Your task to perform on an android device: Show me popular videos on Youtube Image 0: 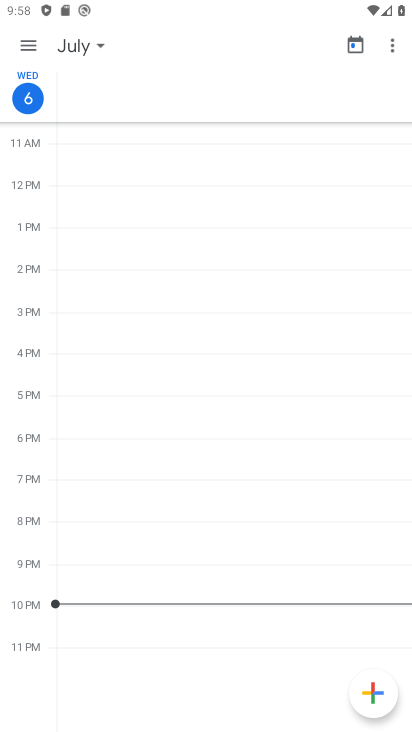
Step 0: press home button
Your task to perform on an android device: Show me popular videos on Youtube Image 1: 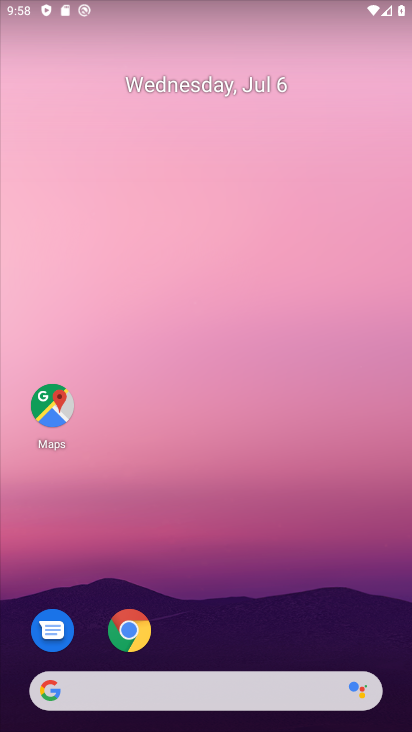
Step 1: drag from (269, 659) to (262, 255)
Your task to perform on an android device: Show me popular videos on Youtube Image 2: 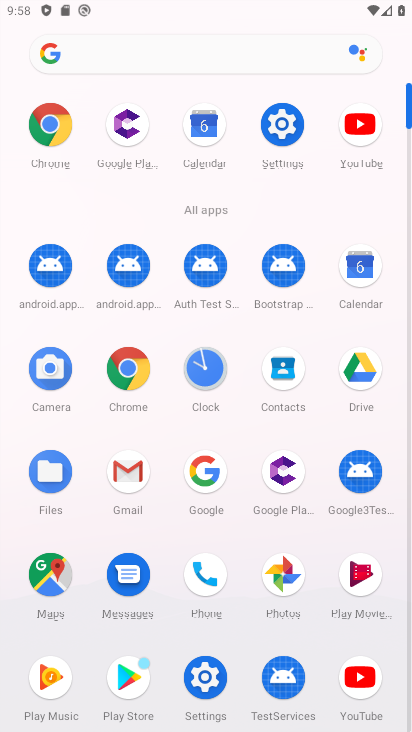
Step 2: click (373, 678)
Your task to perform on an android device: Show me popular videos on Youtube Image 3: 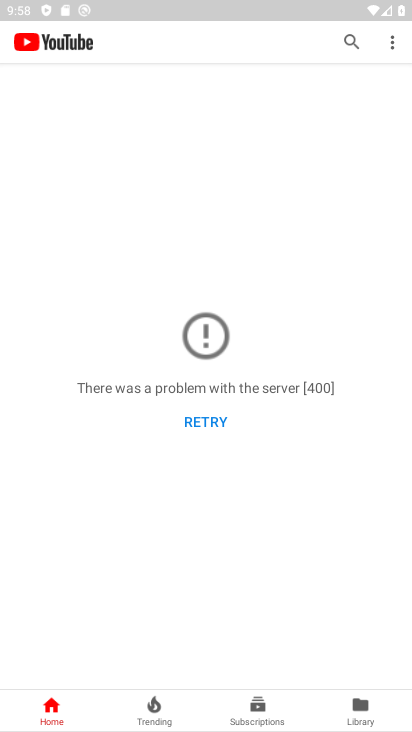
Step 3: click (144, 697)
Your task to perform on an android device: Show me popular videos on Youtube Image 4: 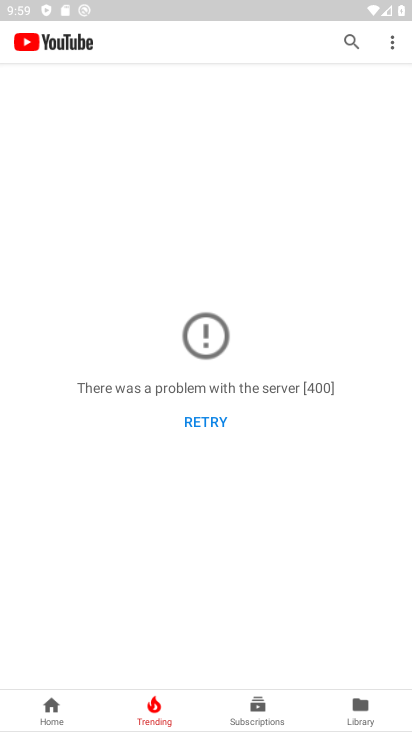
Step 4: task complete